Your task to perform on an android device: toggle airplane mode Image 0: 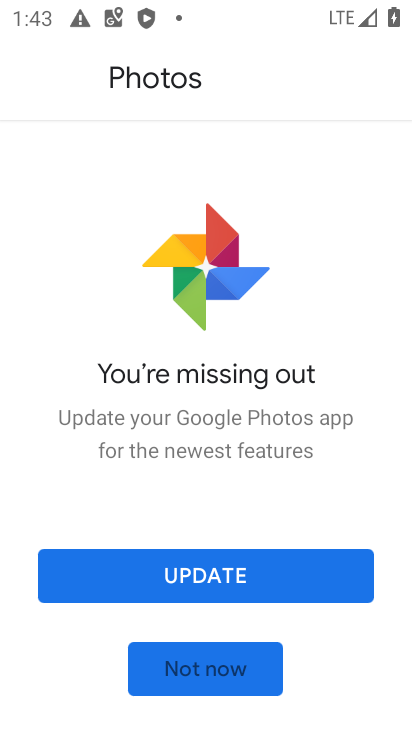
Step 0: press home button
Your task to perform on an android device: toggle airplane mode Image 1: 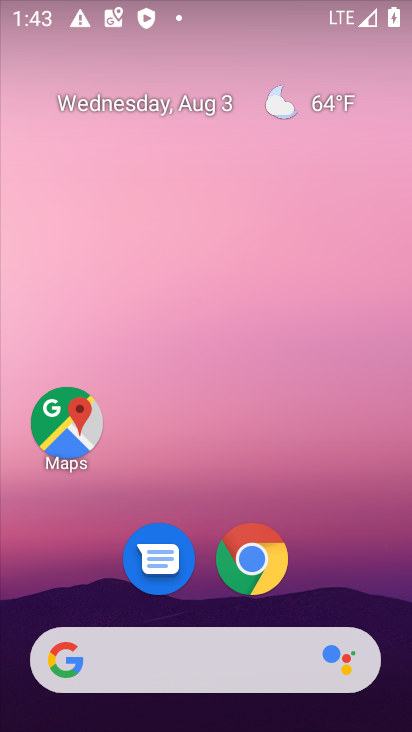
Step 1: drag from (208, 603) to (145, 69)
Your task to perform on an android device: toggle airplane mode Image 2: 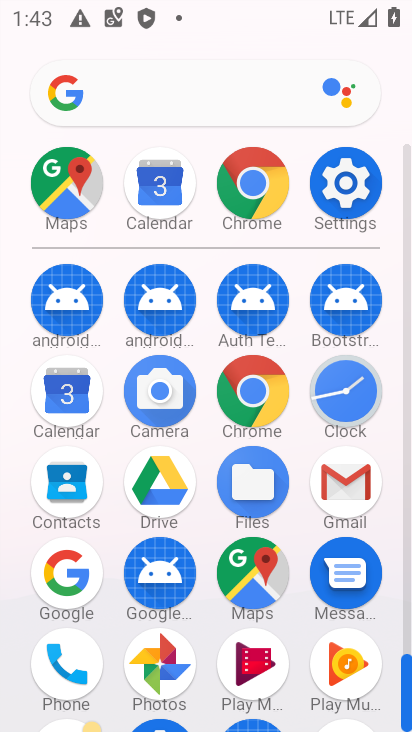
Step 2: click (339, 183)
Your task to perform on an android device: toggle airplane mode Image 3: 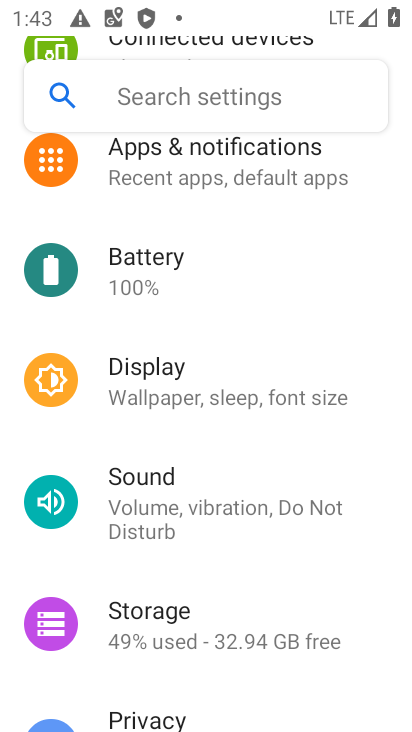
Step 3: drag from (191, 175) to (229, 451)
Your task to perform on an android device: toggle airplane mode Image 4: 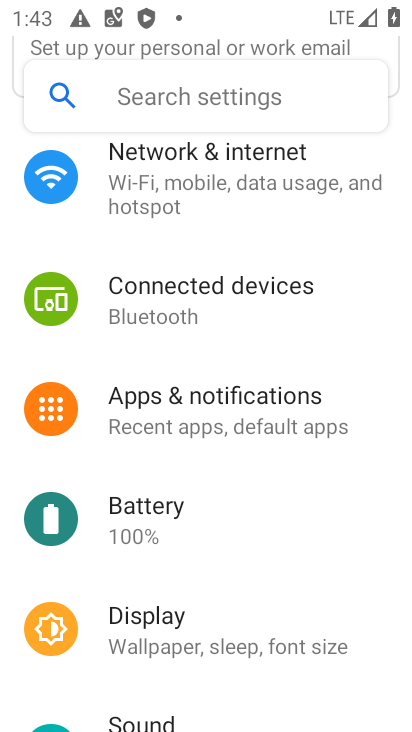
Step 4: drag from (182, 188) to (191, 540)
Your task to perform on an android device: toggle airplane mode Image 5: 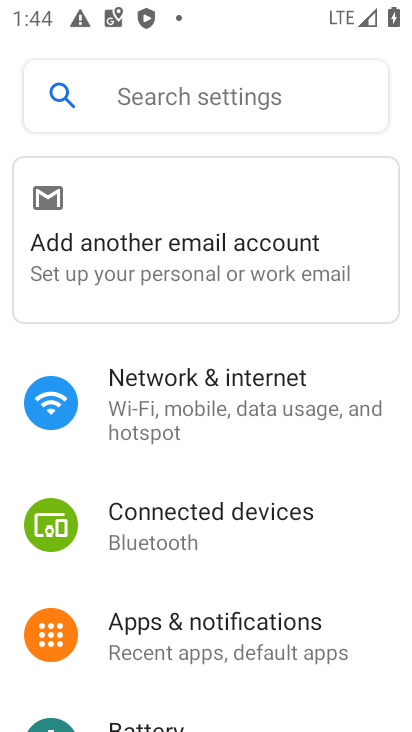
Step 5: click (152, 402)
Your task to perform on an android device: toggle airplane mode Image 6: 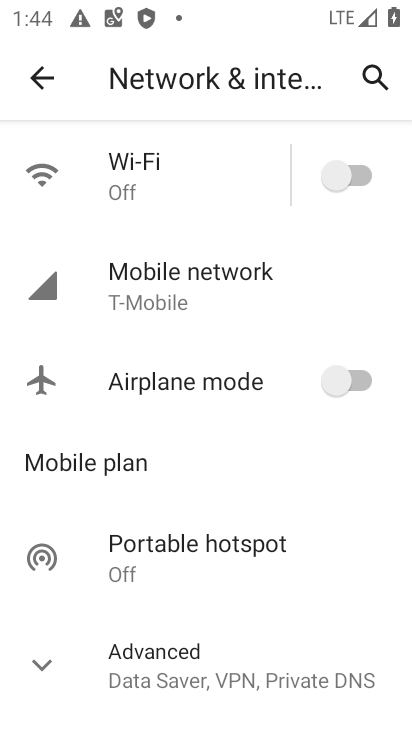
Step 6: click (362, 383)
Your task to perform on an android device: toggle airplane mode Image 7: 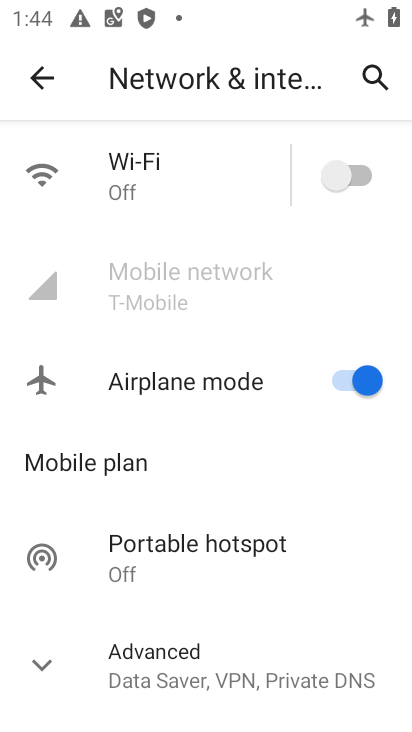
Step 7: task complete